Your task to perform on an android device: Do I have any events tomorrow? Image 0: 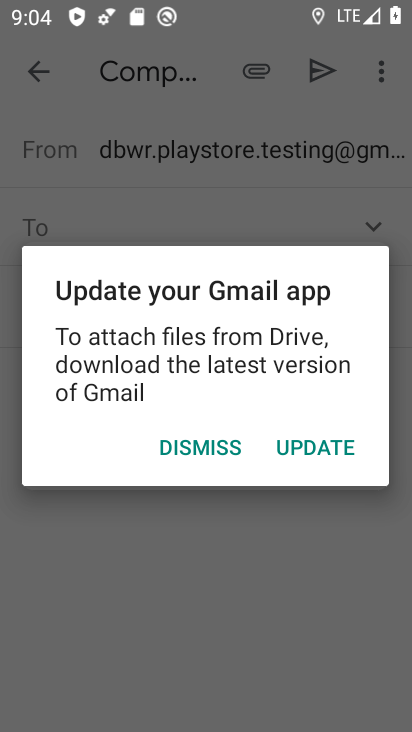
Step 0: press home button
Your task to perform on an android device: Do I have any events tomorrow? Image 1: 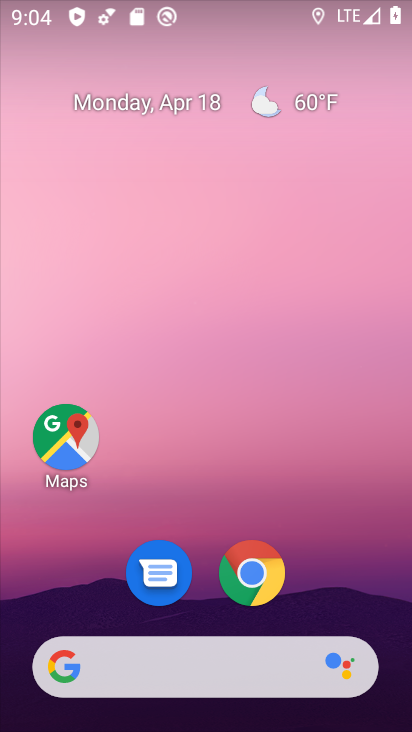
Step 1: drag from (317, 547) to (311, 148)
Your task to perform on an android device: Do I have any events tomorrow? Image 2: 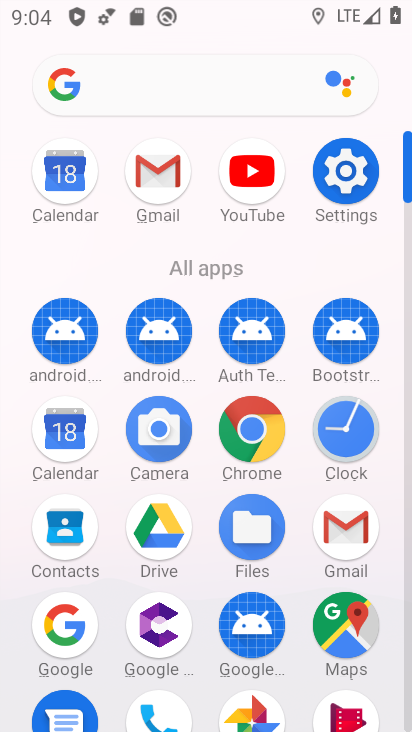
Step 2: click (67, 445)
Your task to perform on an android device: Do I have any events tomorrow? Image 3: 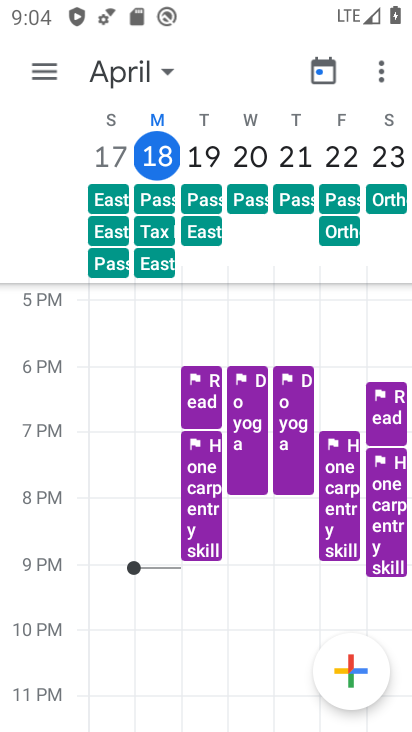
Step 3: click (204, 400)
Your task to perform on an android device: Do I have any events tomorrow? Image 4: 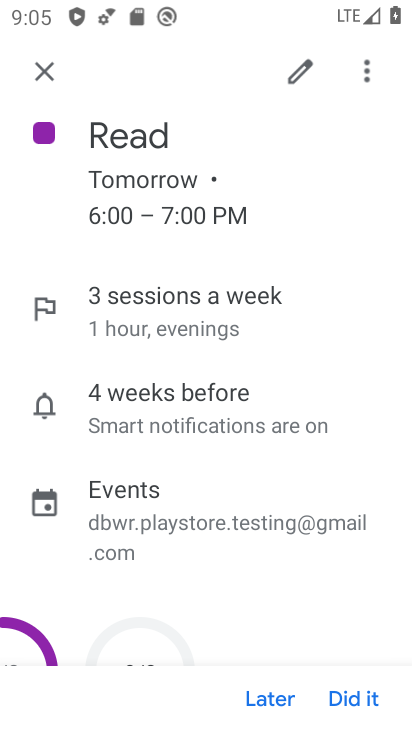
Step 4: click (45, 75)
Your task to perform on an android device: Do I have any events tomorrow? Image 5: 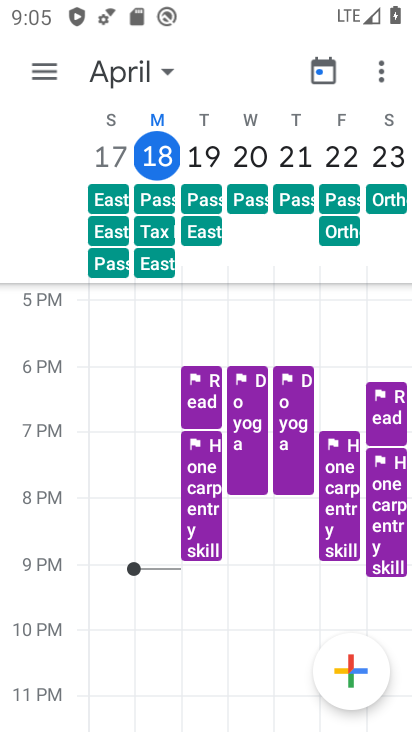
Step 5: drag from (202, 591) to (188, 309)
Your task to perform on an android device: Do I have any events tomorrow? Image 6: 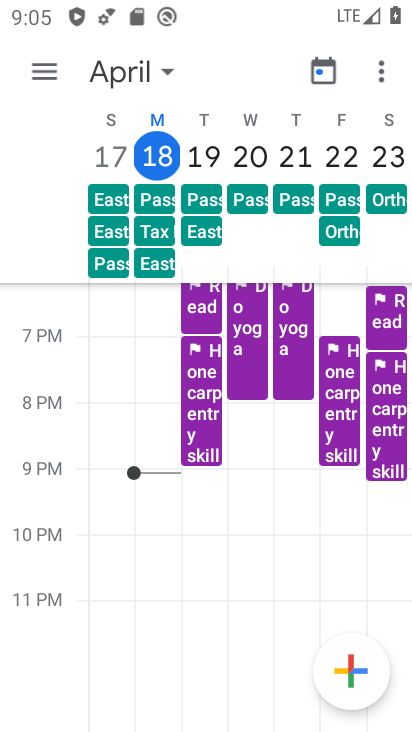
Step 6: click (195, 407)
Your task to perform on an android device: Do I have any events tomorrow? Image 7: 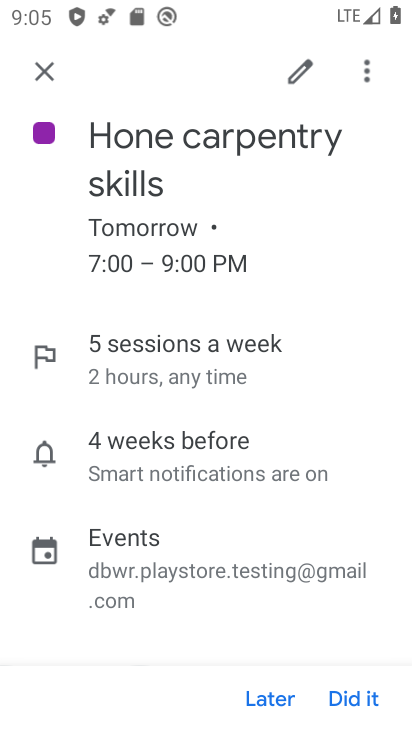
Step 7: click (45, 77)
Your task to perform on an android device: Do I have any events tomorrow? Image 8: 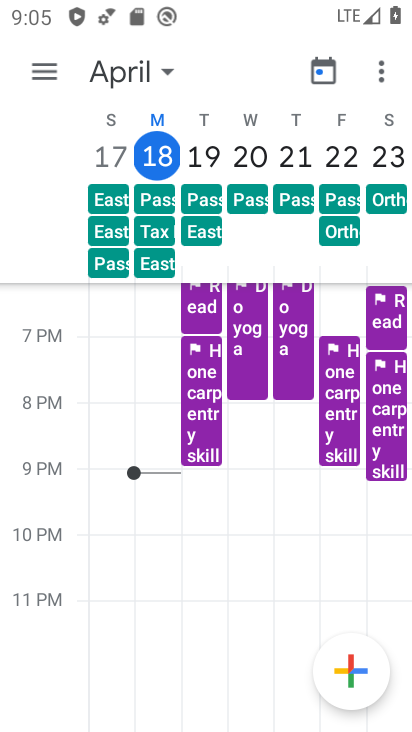
Step 8: task complete